Your task to perform on an android device: Go to settings Image 0: 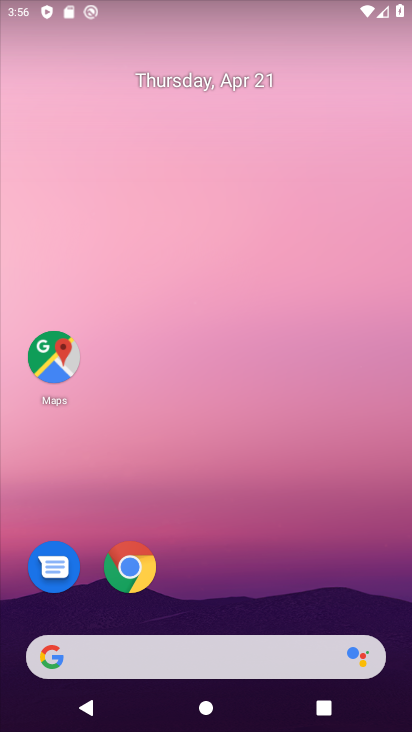
Step 0: drag from (251, 594) to (159, 11)
Your task to perform on an android device: Go to settings Image 1: 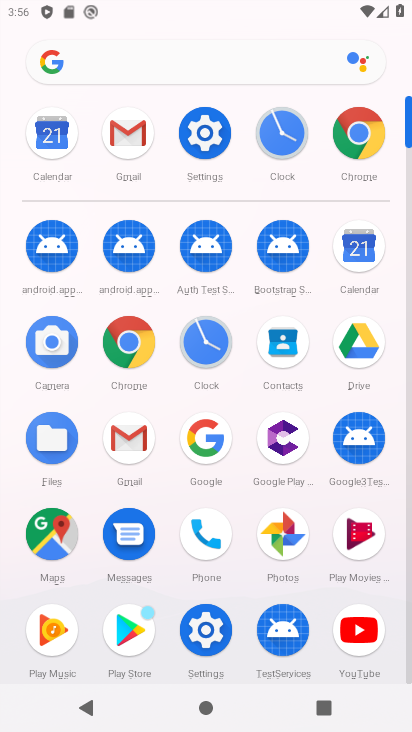
Step 1: click (200, 634)
Your task to perform on an android device: Go to settings Image 2: 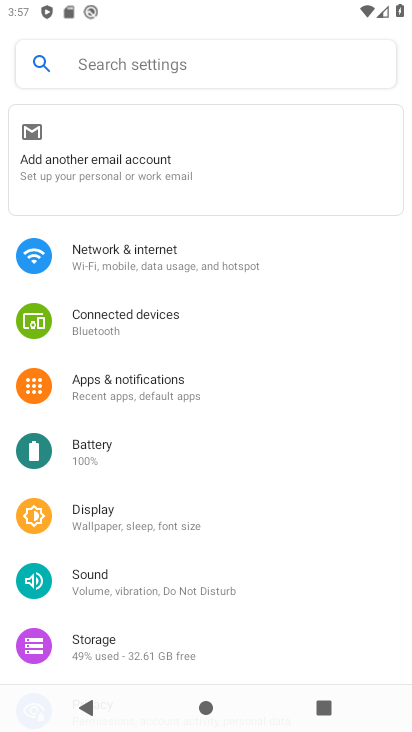
Step 2: task complete